Your task to perform on an android device: Show me recent news Image 0: 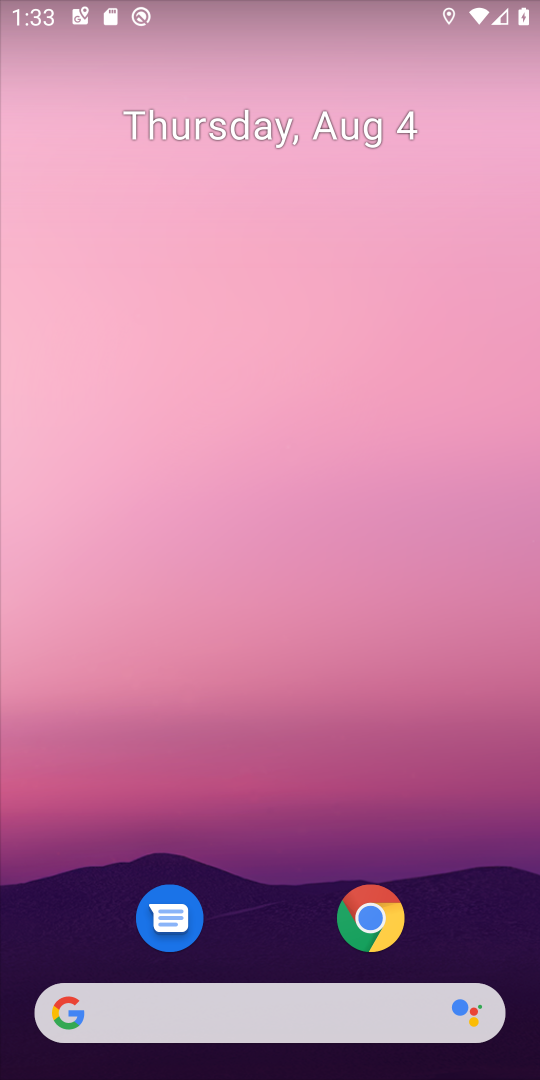
Step 0: drag from (268, 890) to (292, 363)
Your task to perform on an android device: Show me recent news Image 1: 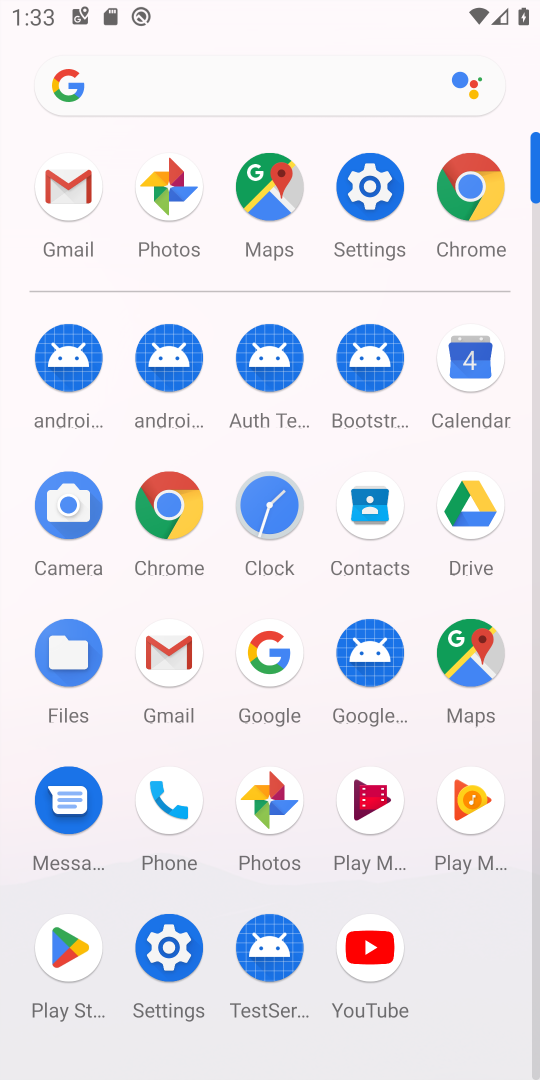
Step 1: click (265, 629)
Your task to perform on an android device: Show me recent news Image 2: 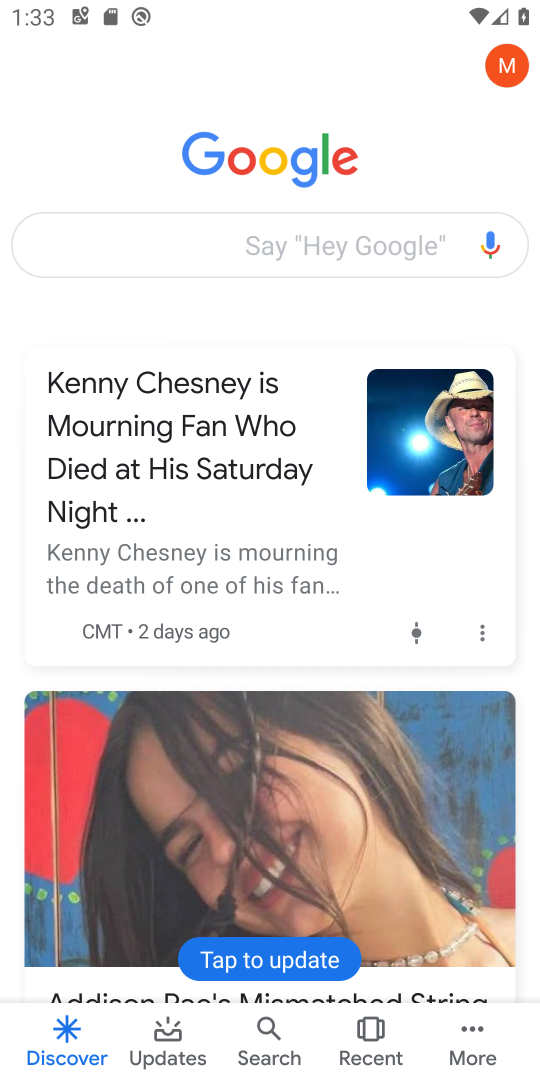
Step 2: click (172, 254)
Your task to perform on an android device: Show me recent news Image 3: 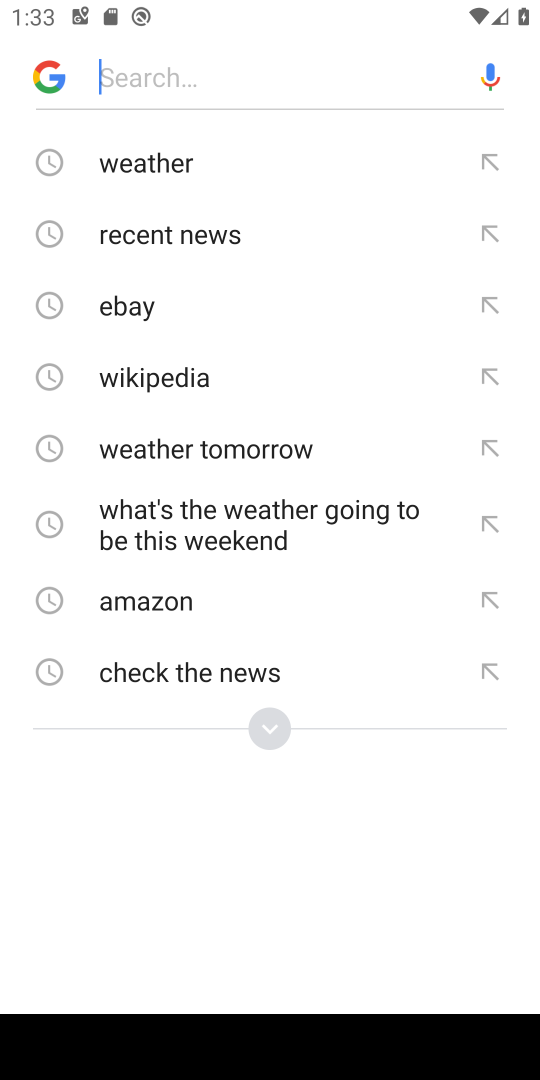
Step 3: click (175, 234)
Your task to perform on an android device: Show me recent news Image 4: 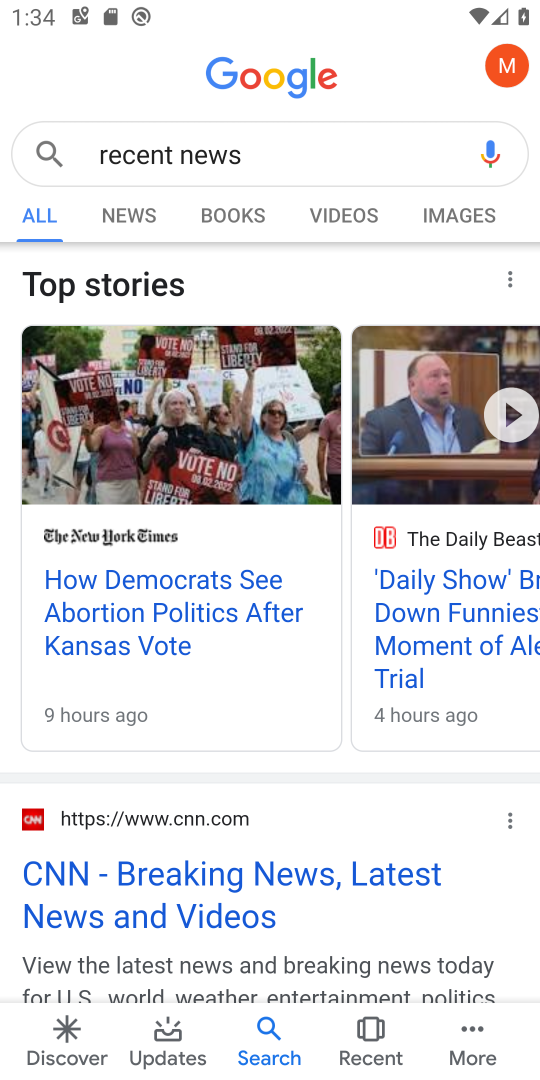
Step 4: click (146, 214)
Your task to perform on an android device: Show me recent news Image 5: 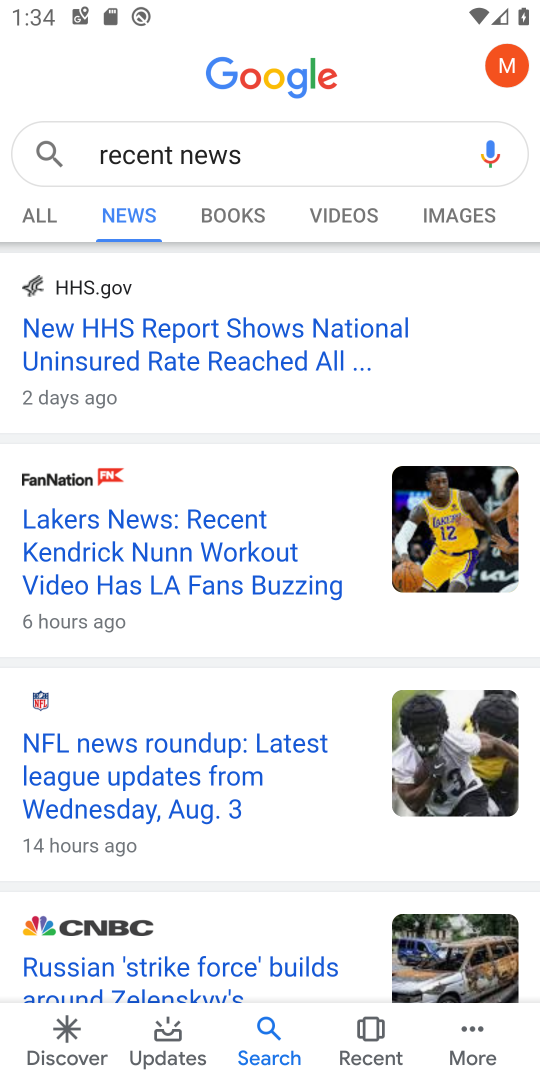
Step 5: task complete